Your task to perform on an android device: turn on notifications settings in the gmail app Image 0: 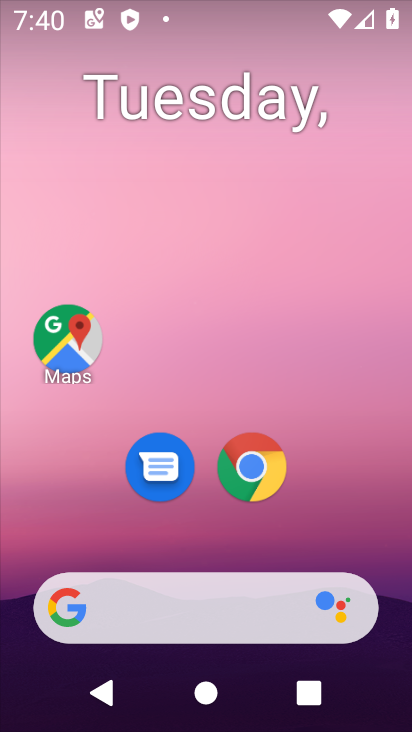
Step 0: drag from (378, 550) to (307, 291)
Your task to perform on an android device: turn on notifications settings in the gmail app Image 1: 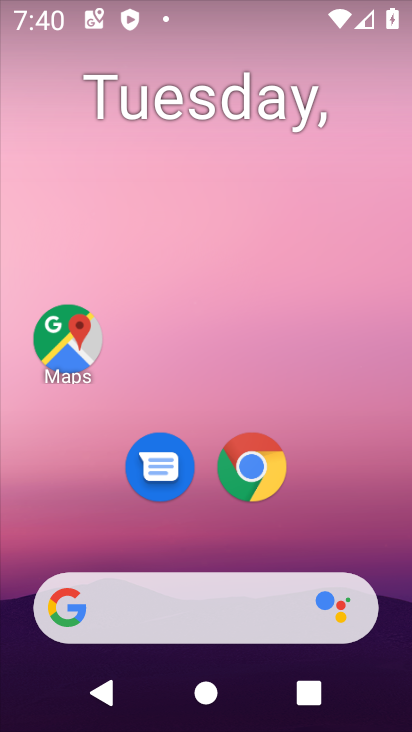
Step 1: drag from (373, 516) to (205, 100)
Your task to perform on an android device: turn on notifications settings in the gmail app Image 2: 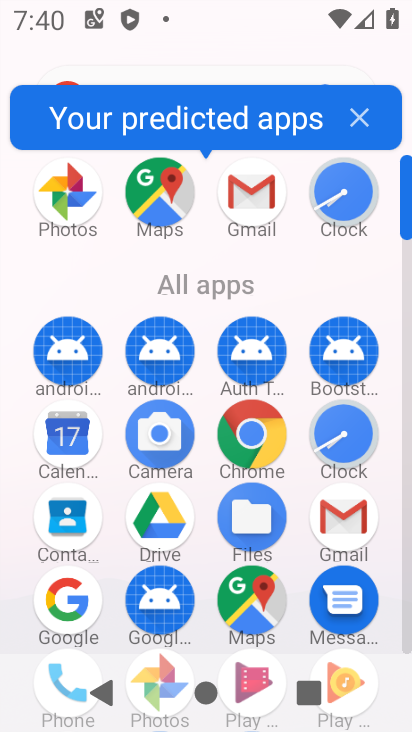
Step 2: click (255, 180)
Your task to perform on an android device: turn on notifications settings in the gmail app Image 3: 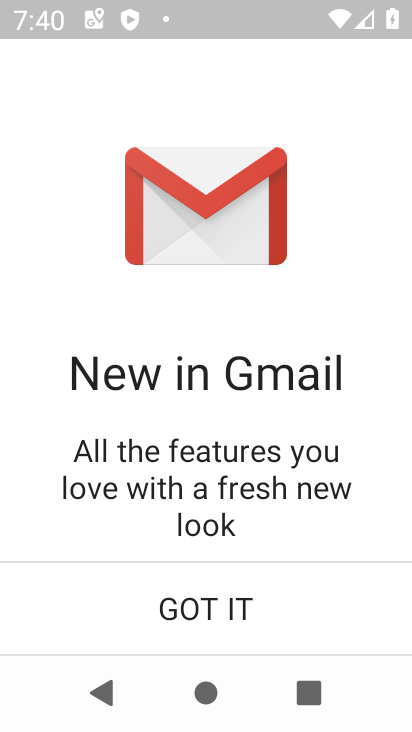
Step 3: click (198, 609)
Your task to perform on an android device: turn on notifications settings in the gmail app Image 4: 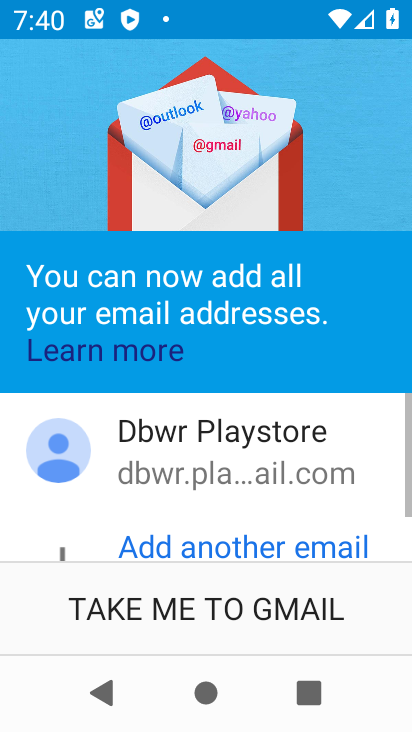
Step 4: click (198, 609)
Your task to perform on an android device: turn on notifications settings in the gmail app Image 5: 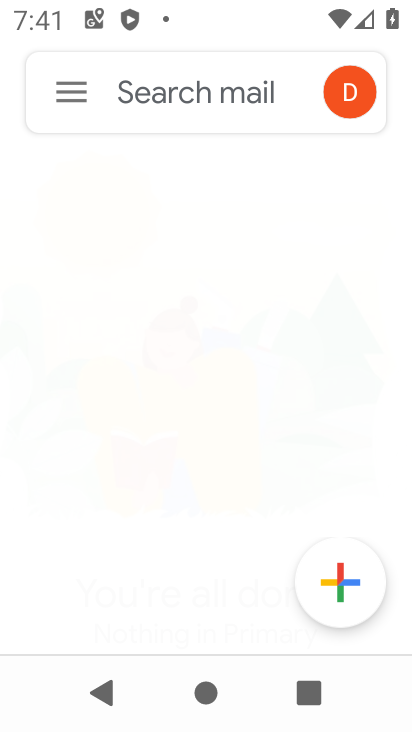
Step 5: click (81, 99)
Your task to perform on an android device: turn on notifications settings in the gmail app Image 6: 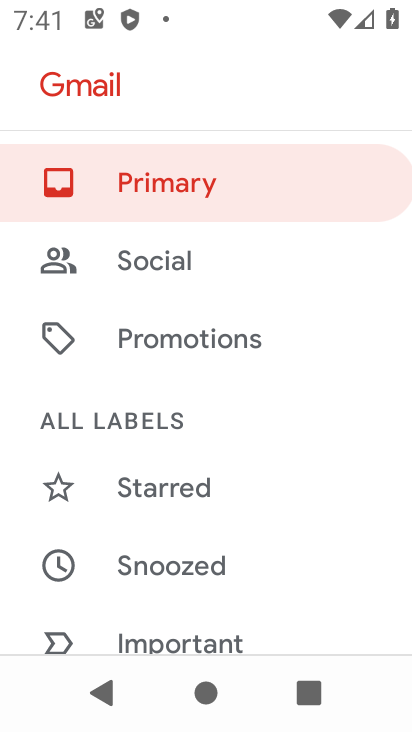
Step 6: drag from (210, 619) to (215, 134)
Your task to perform on an android device: turn on notifications settings in the gmail app Image 7: 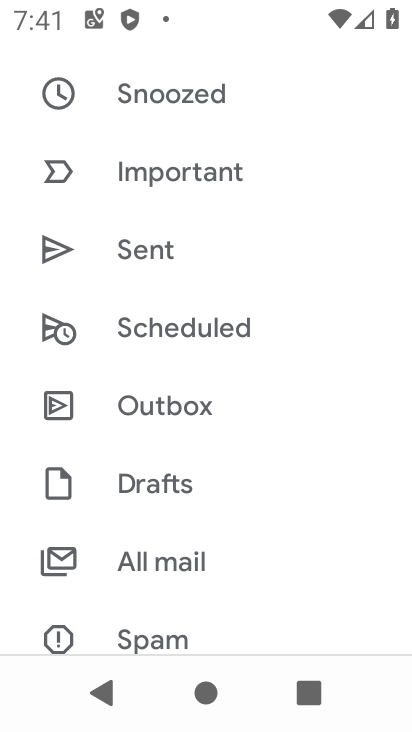
Step 7: drag from (193, 610) to (198, 282)
Your task to perform on an android device: turn on notifications settings in the gmail app Image 8: 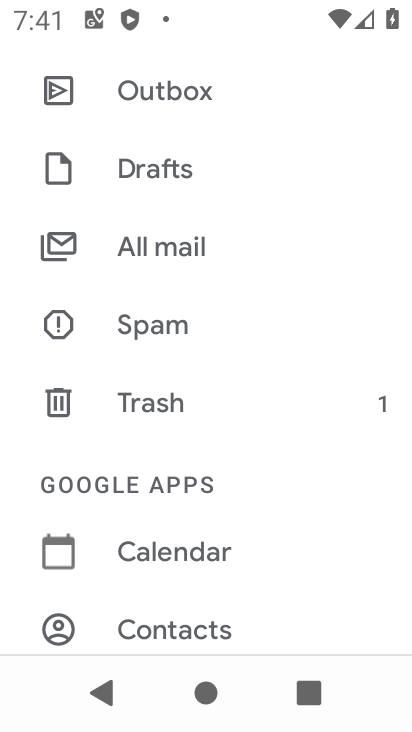
Step 8: drag from (232, 531) to (226, 218)
Your task to perform on an android device: turn on notifications settings in the gmail app Image 9: 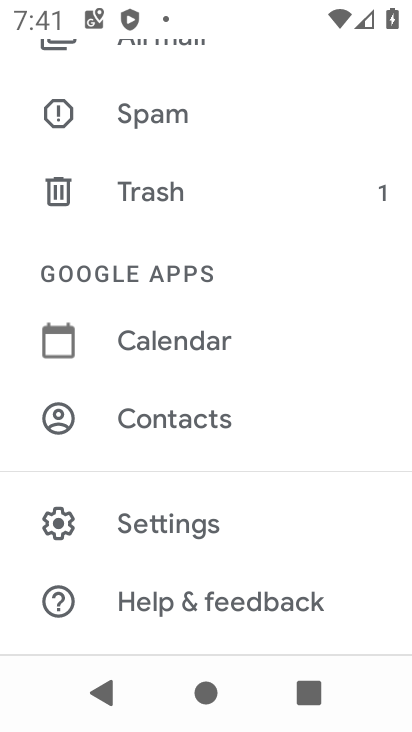
Step 9: click (214, 518)
Your task to perform on an android device: turn on notifications settings in the gmail app Image 10: 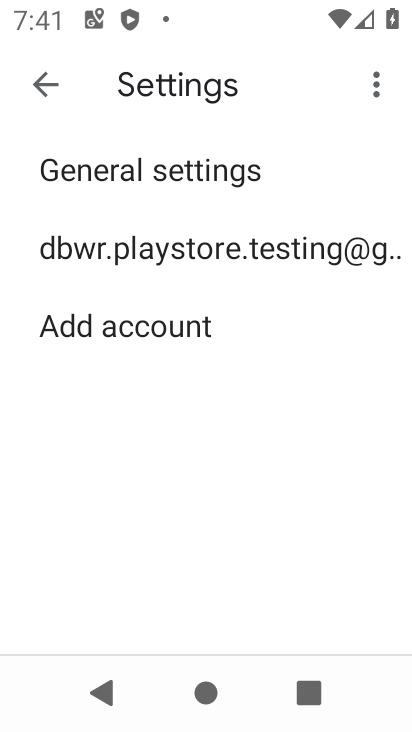
Step 10: click (321, 254)
Your task to perform on an android device: turn on notifications settings in the gmail app Image 11: 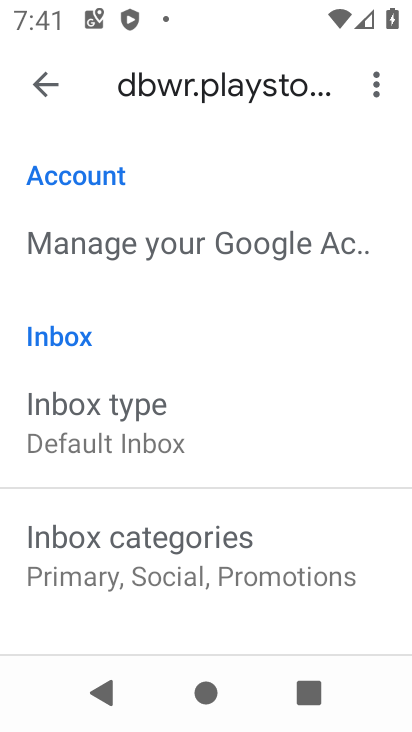
Step 11: drag from (298, 625) to (277, 171)
Your task to perform on an android device: turn on notifications settings in the gmail app Image 12: 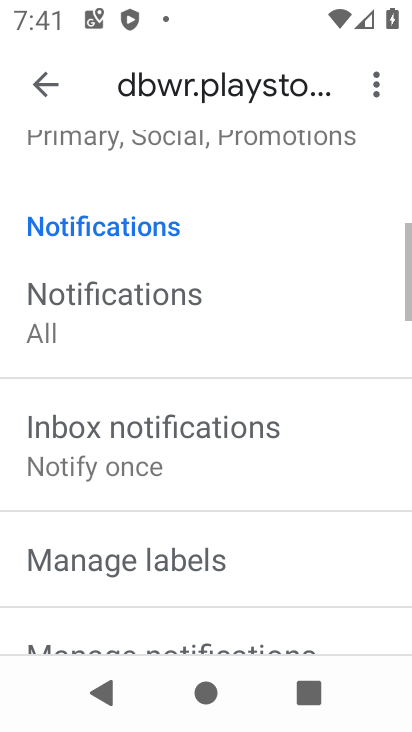
Step 12: click (277, 171)
Your task to perform on an android device: turn on notifications settings in the gmail app Image 13: 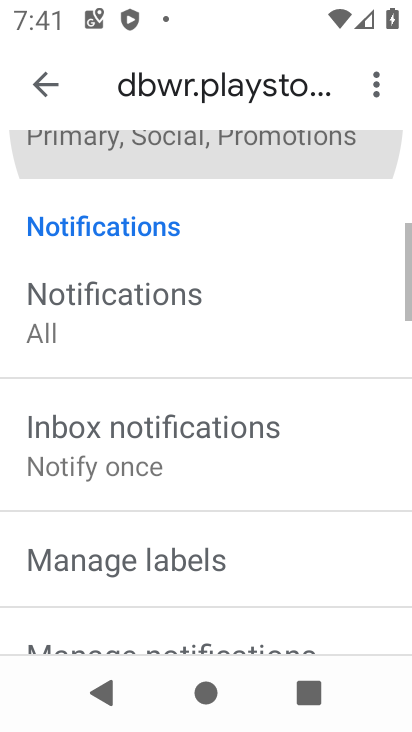
Step 13: click (277, 171)
Your task to perform on an android device: turn on notifications settings in the gmail app Image 14: 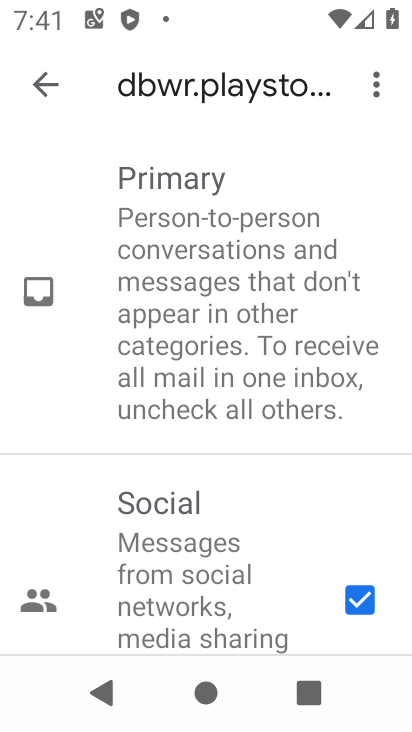
Step 14: click (68, 76)
Your task to perform on an android device: turn on notifications settings in the gmail app Image 15: 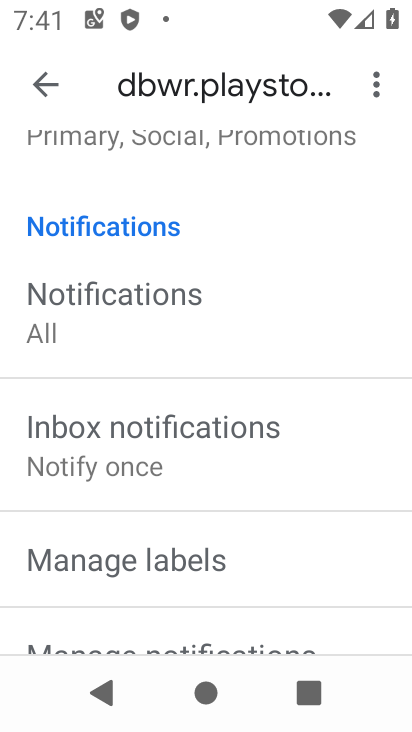
Step 15: drag from (298, 561) to (346, 100)
Your task to perform on an android device: turn on notifications settings in the gmail app Image 16: 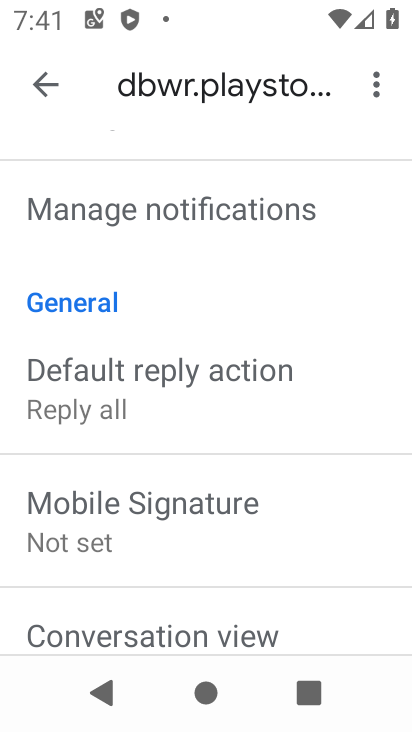
Step 16: click (328, 213)
Your task to perform on an android device: turn on notifications settings in the gmail app Image 17: 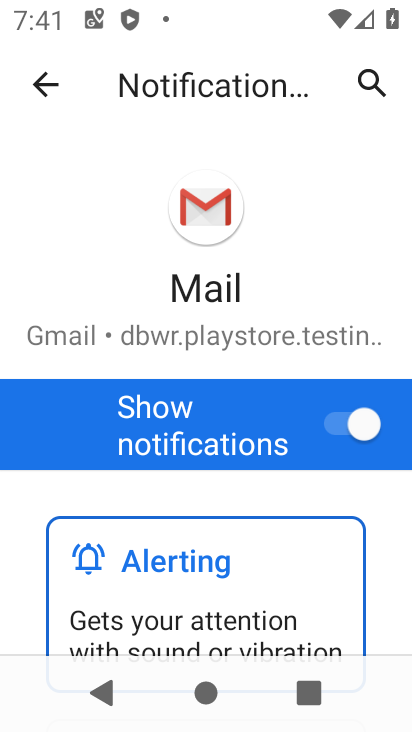
Step 17: drag from (313, 576) to (299, 342)
Your task to perform on an android device: turn on notifications settings in the gmail app Image 18: 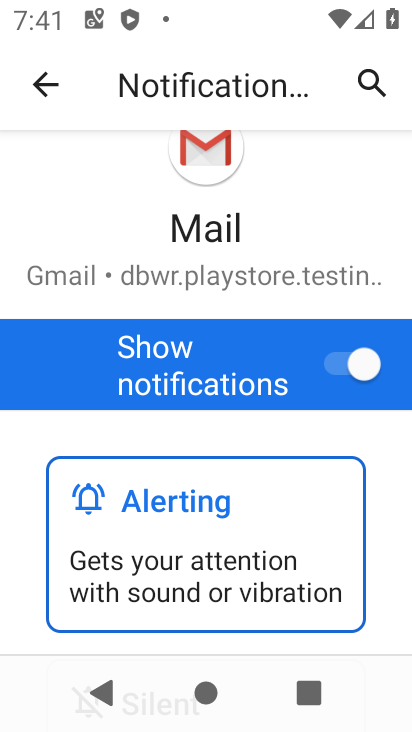
Step 18: drag from (382, 510) to (371, 271)
Your task to perform on an android device: turn on notifications settings in the gmail app Image 19: 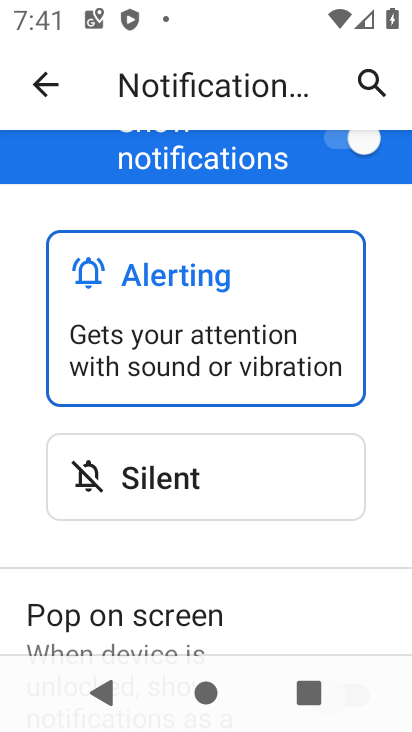
Step 19: drag from (333, 561) to (329, 342)
Your task to perform on an android device: turn on notifications settings in the gmail app Image 20: 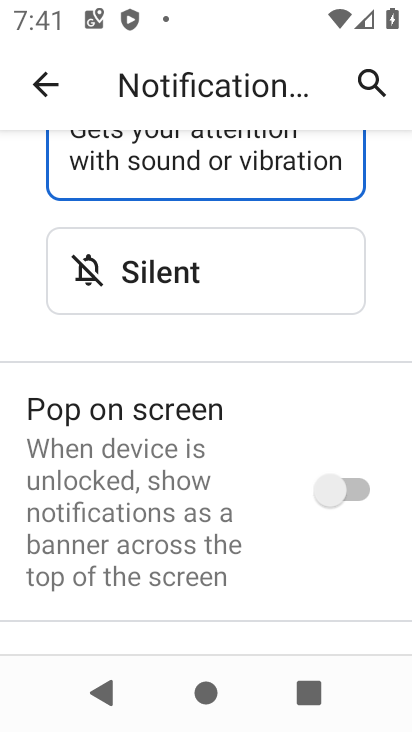
Step 20: click (354, 479)
Your task to perform on an android device: turn on notifications settings in the gmail app Image 21: 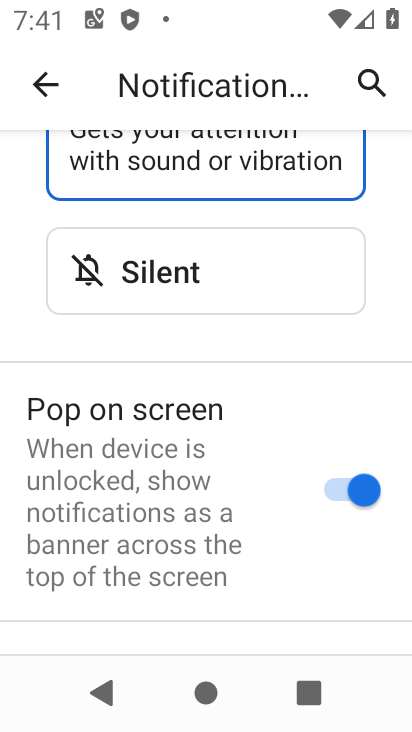
Step 21: task complete